Your task to perform on an android device: change the clock display to show seconds Image 0: 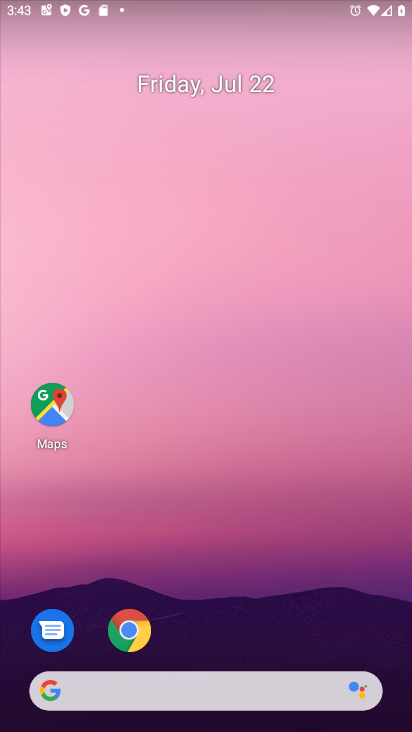
Step 0: drag from (200, 667) to (208, 13)
Your task to perform on an android device: change the clock display to show seconds Image 1: 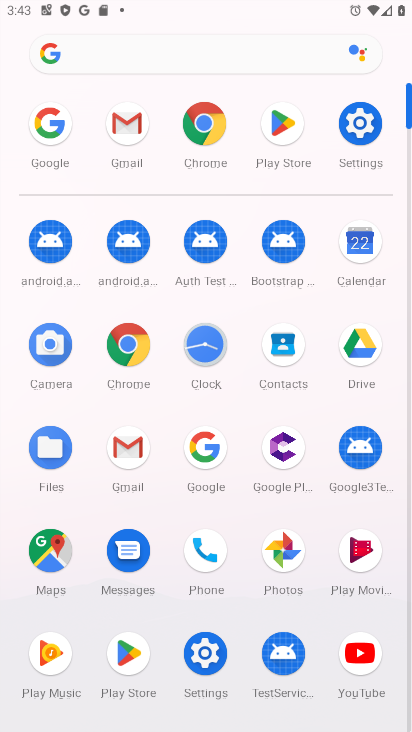
Step 1: click (196, 328)
Your task to perform on an android device: change the clock display to show seconds Image 2: 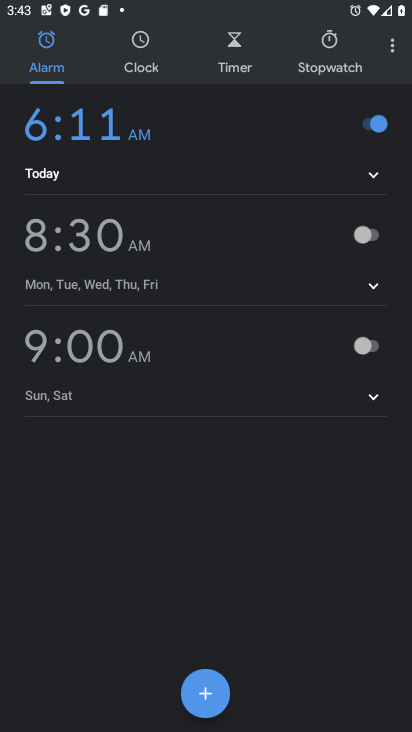
Step 2: click (395, 50)
Your task to perform on an android device: change the clock display to show seconds Image 3: 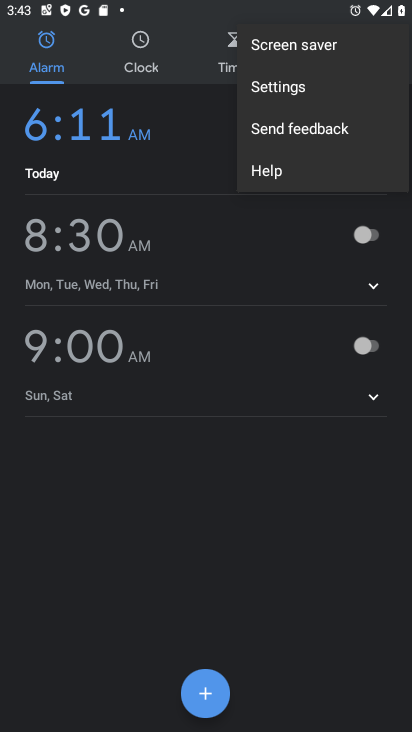
Step 3: click (291, 94)
Your task to perform on an android device: change the clock display to show seconds Image 4: 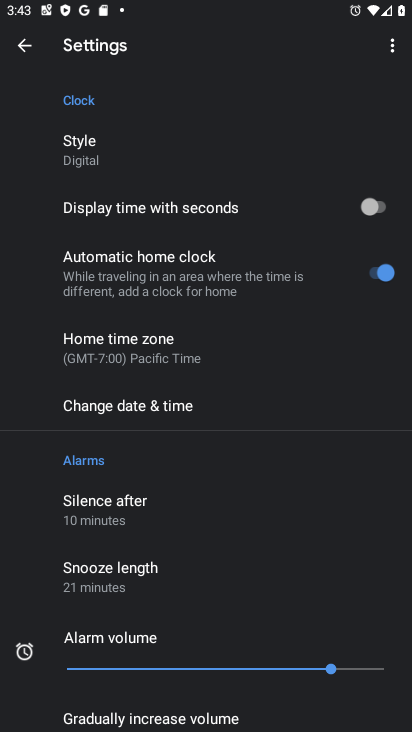
Step 4: drag from (161, 533) to (144, 130)
Your task to perform on an android device: change the clock display to show seconds Image 5: 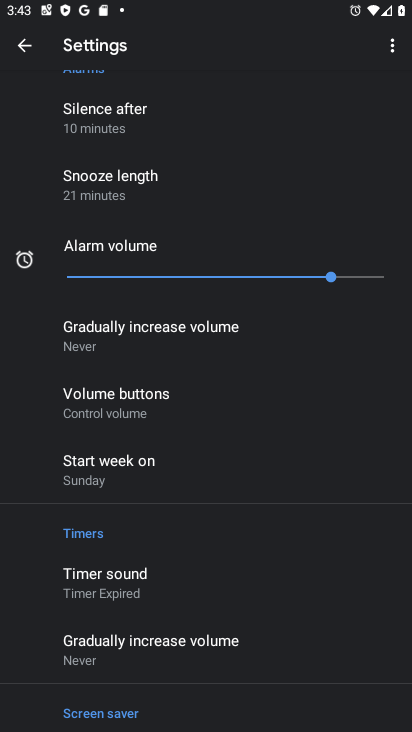
Step 5: drag from (145, 130) to (30, 483)
Your task to perform on an android device: change the clock display to show seconds Image 6: 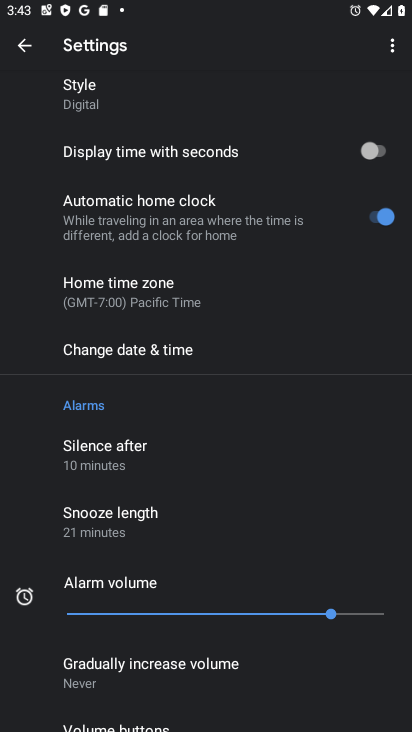
Step 6: click (384, 158)
Your task to perform on an android device: change the clock display to show seconds Image 7: 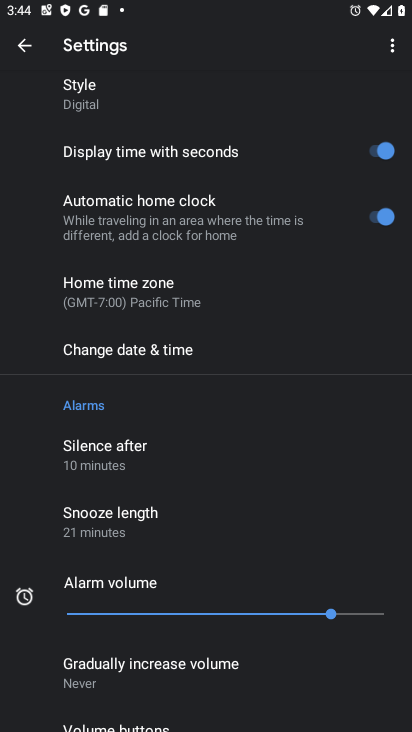
Step 7: task complete